Your task to perform on an android device: turn off priority inbox in the gmail app Image 0: 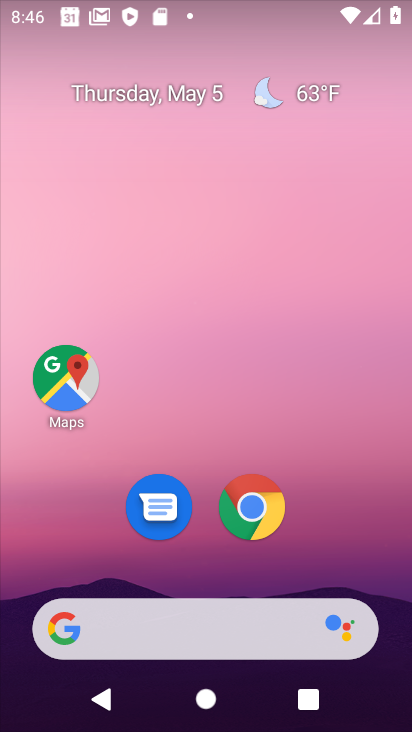
Step 0: drag from (346, 549) to (294, 26)
Your task to perform on an android device: turn off priority inbox in the gmail app Image 1: 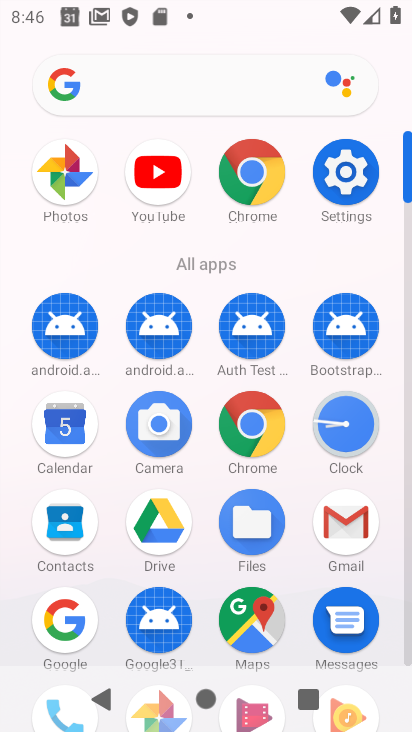
Step 1: click (350, 539)
Your task to perform on an android device: turn off priority inbox in the gmail app Image 2: 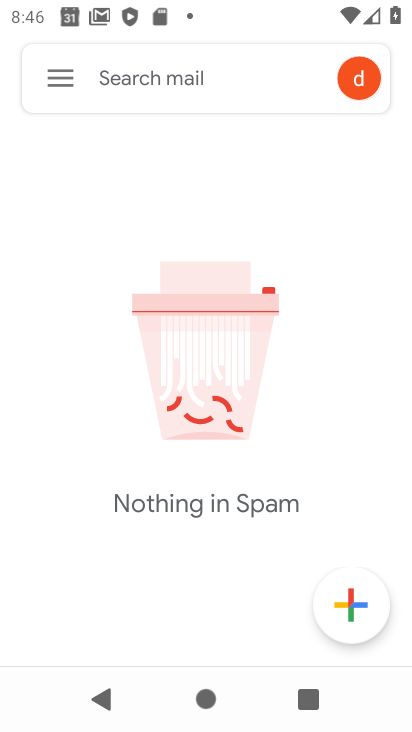
Step 2: click (68, 74)
Your task to perform on an android device: turn off priority inbox in the gmail app Image 3: 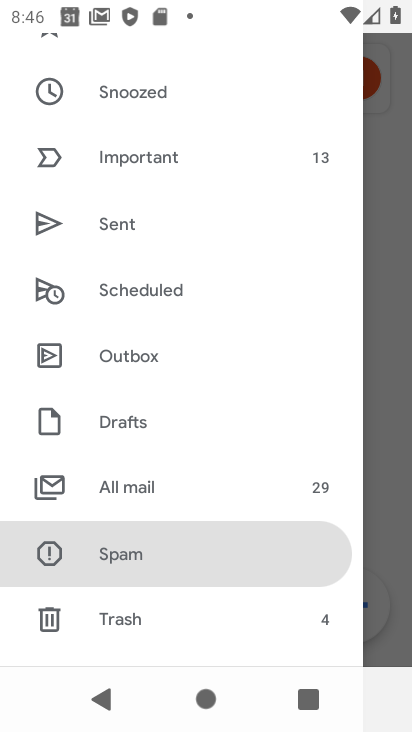
Step 3: drag from (198, 597) to (195, 164)
Your task to perform on an android device: turn off priority inbox in the gmail app Image 4: 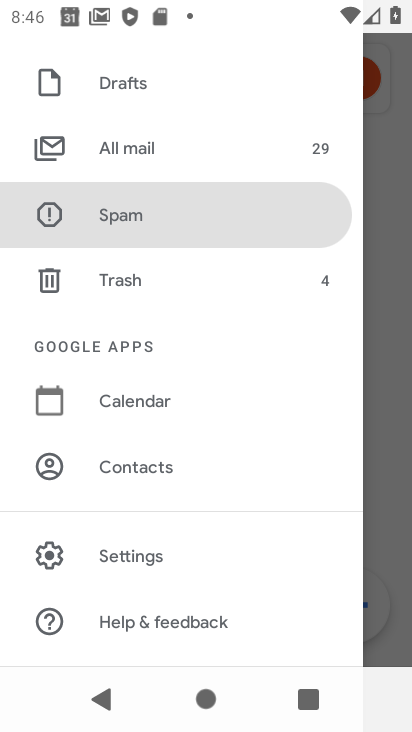
Step 4: click (185, 550)
Your task to perform on an android device: turn off priority inbox in the gmail app Image 5: 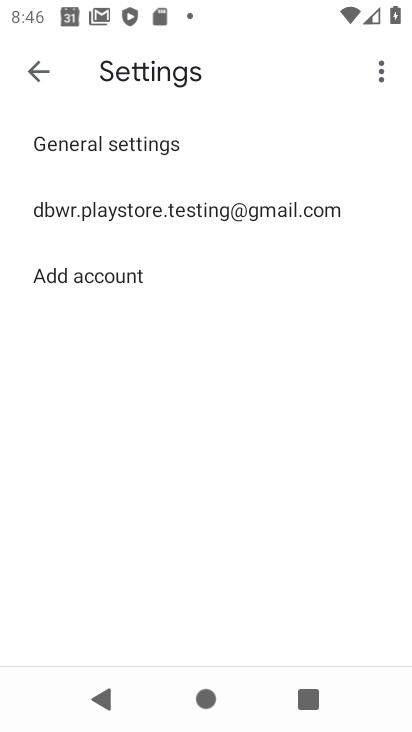
Step 5: click (91, 203)
Your task to perform on an android device: turn off priority inbox in the gmail app Image 6: 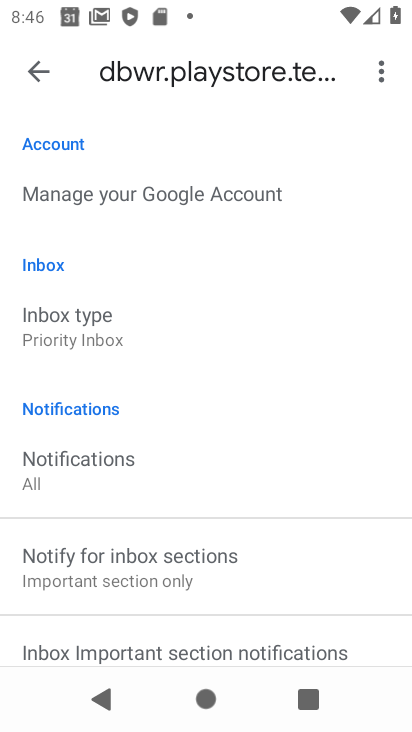
Step 6: click (100, 321)
Your task to perform on an android device: turn off priority inbox in the gmail app Image 7: 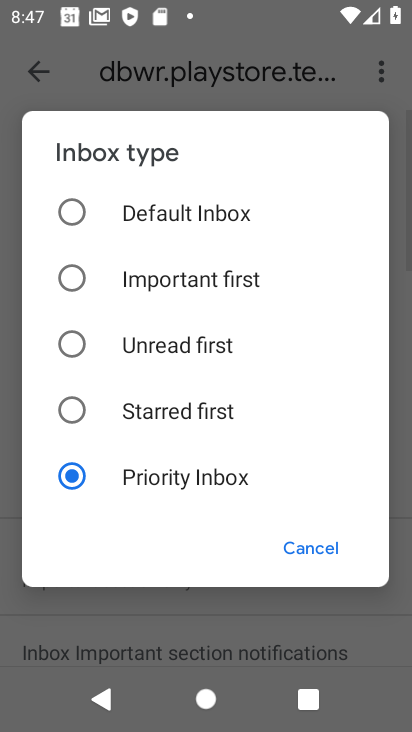
Step 7: click (96, 212)
Your task to perform on an android device: turn off priority inbox in the gmail app Image 8: 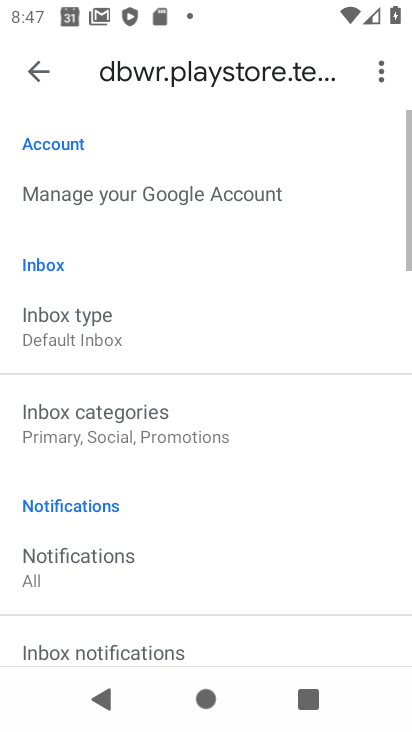
Step 8: task complete